Your task to perform on an android device: find snoozed emails in the gmail app Image 0: 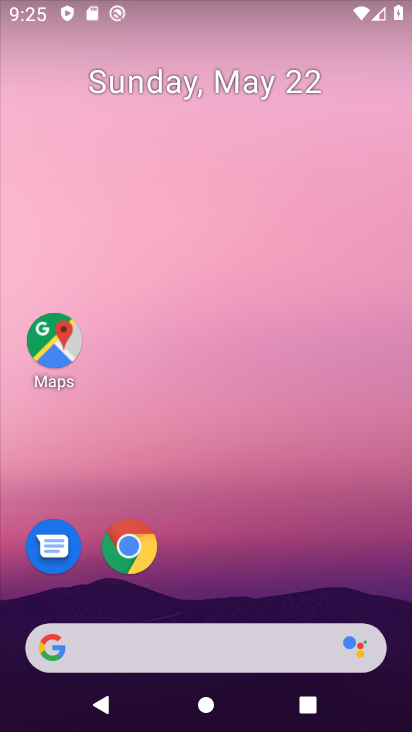
Step 0: drag from (266, 586) to (240, 173)
Your task to perform on an android device: find snoozed emails in the gmail app Image 1: 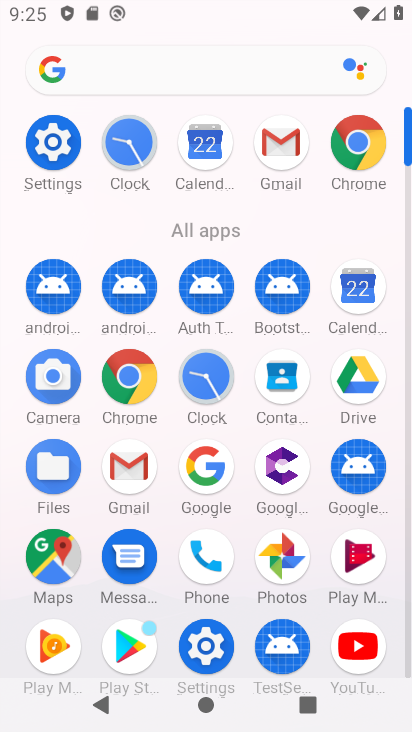
Step 1: click (283, 156)
Your task to perform on an android device: find snoozed emails in the gmail app Image 2: 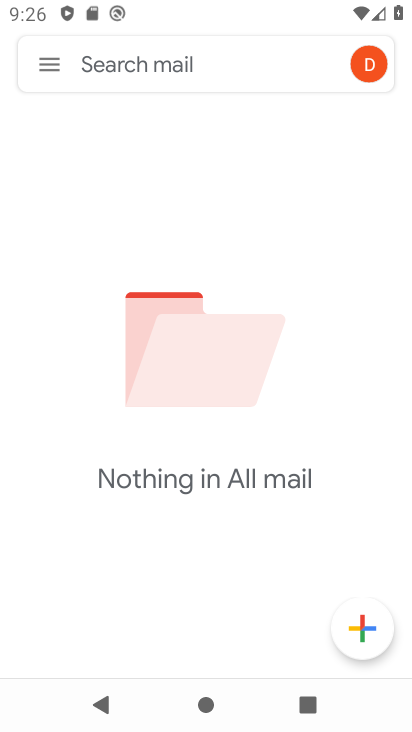
Step 2: click (50, 76)
Your task to perform on an android device: find snoozed emails in the gmail app Image 3: 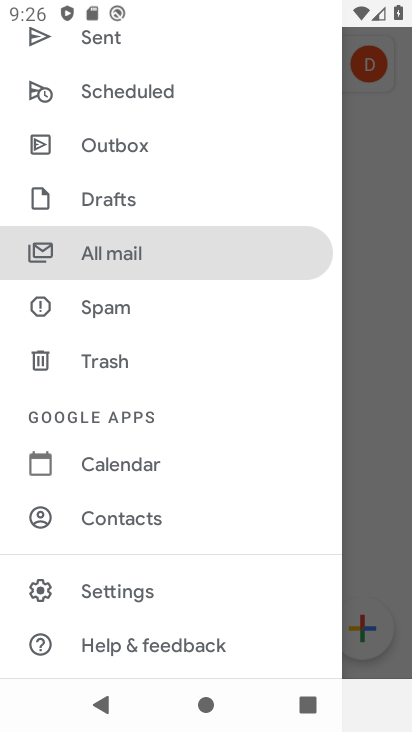
Step 3: drag from (209, 145) to (202, 553)
Your task to perform on an android device: find snoozed emails in the gmail app Image 4: 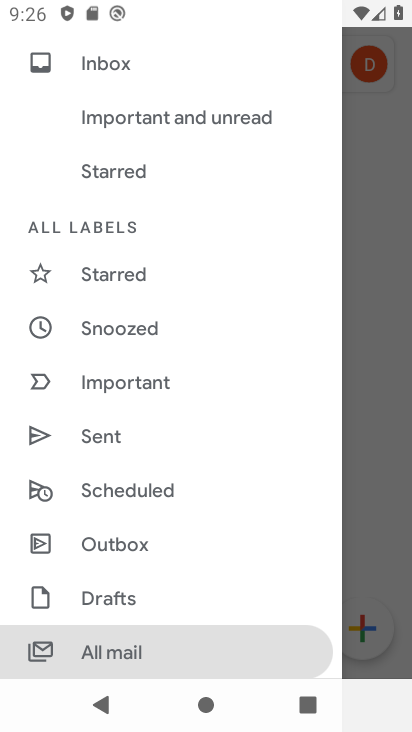
Step 4: click (175, 336)
Your task to perform on an android device: find snoozed emails in the gmail app Image 5: 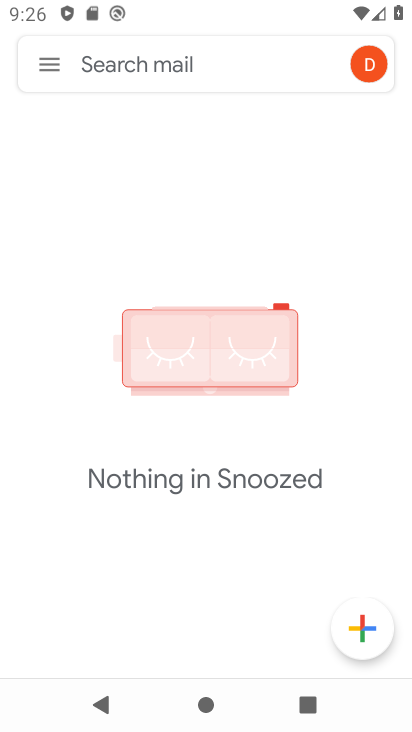
Step 5: task complete